Your task to perform on an android device: manage bookmarks in the chrome app Image 0: 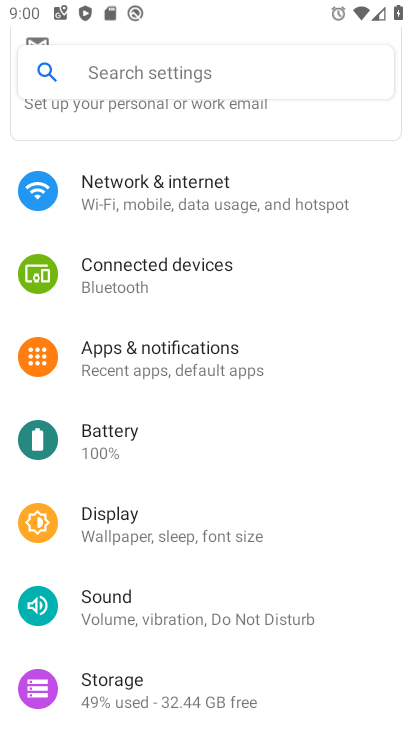
Step 0: press home button
Your task to perform on an android device: manage bookmarks in the chrome app Image 1: 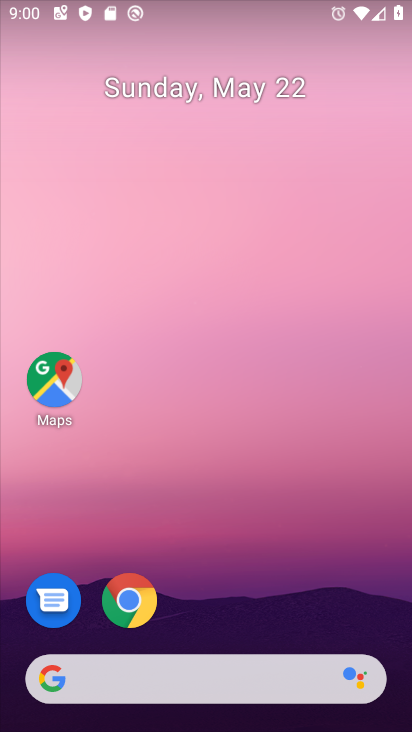
Step 1: click (148, 597)
Your task to perform on an android device: manage bookmarks in the chrome app Image 2: 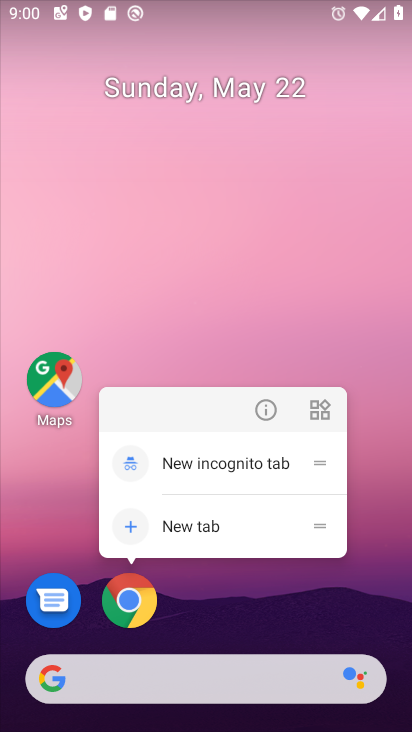
Step 2: click (136, 603)
Your task to perform on an android device: manage bookmarks in the chrome app Image 3: 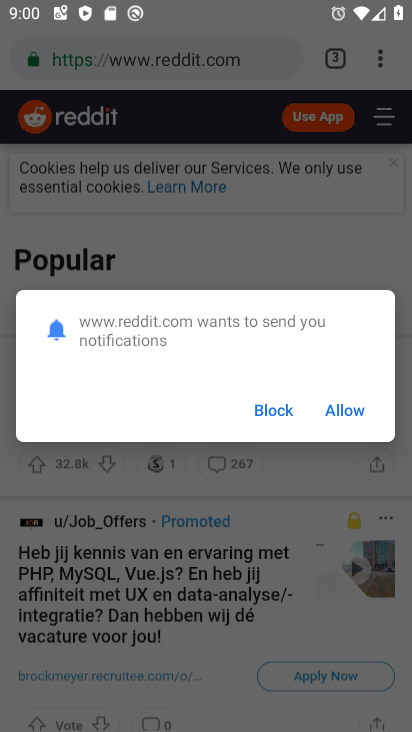
Step 3: click (299, 232)
Your task to perform on an android device: manage bookmarks in the chrome app Image 4: 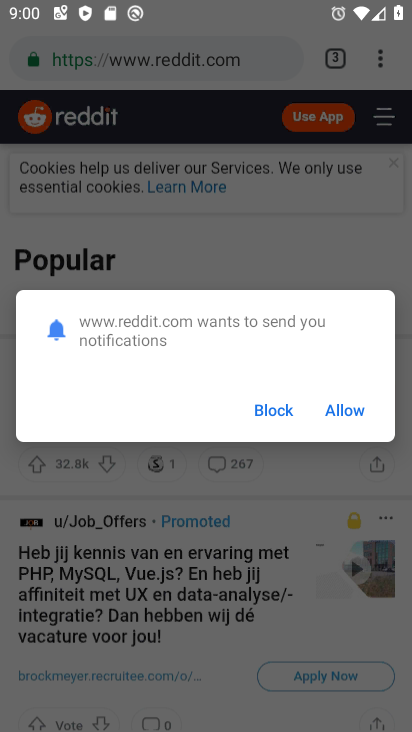
Step 4: click (269, 411)
Your task to perform on an android device: manage bookmarks in the chrome app Image 5: 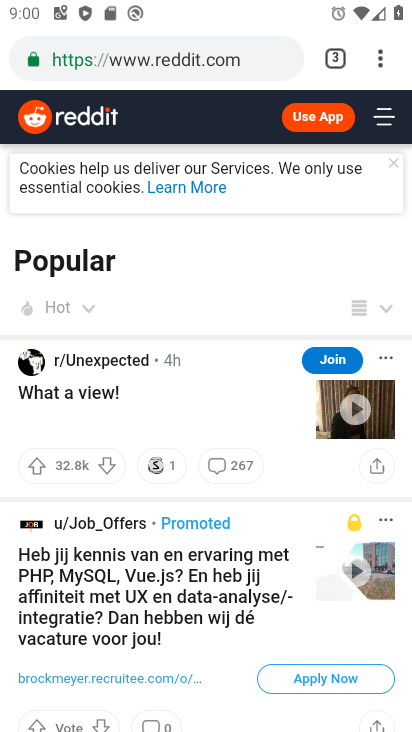
Step 5: click (383, 69)
Your task to perform on an android device: manage bookmarks in the chrome app Image 6: 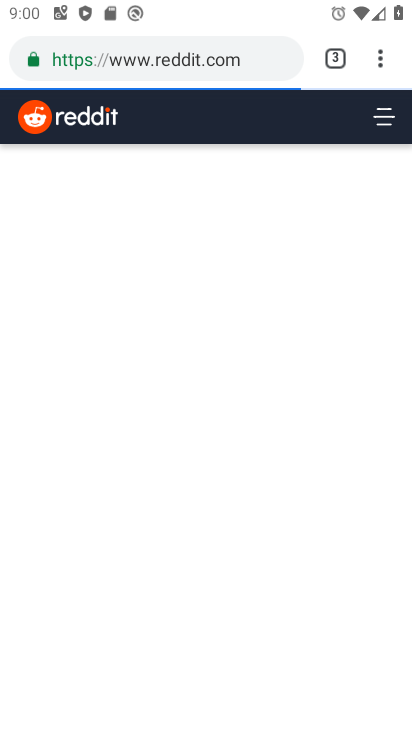
Step 6: click (382, 68)
Your task to perform on an android device: manage bookmarks in the chrome app Image 7: 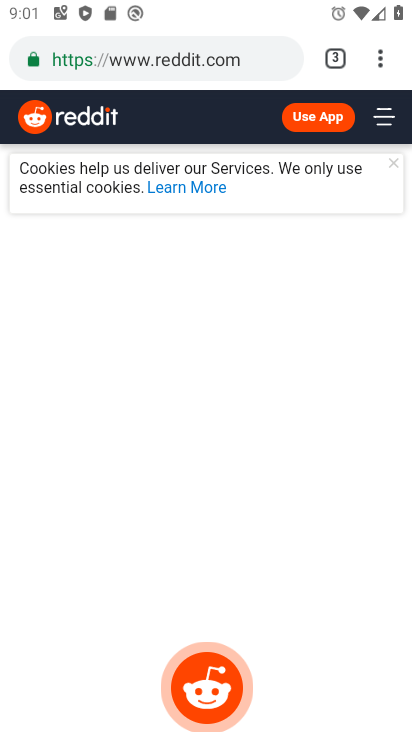
Step 7: click (382, 68)
Your task to perform on an android device: manage bookmarks in the chrome app Image 8: 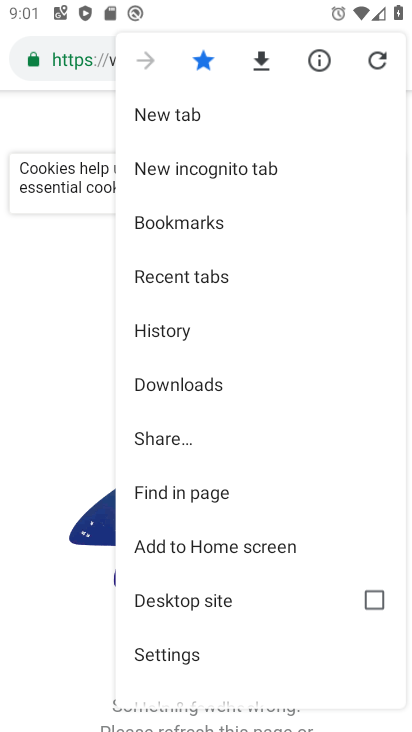
Step 8: click (225, 228)
Your task to perform on an android device: manage bookmarks in the chrome app Image 9: 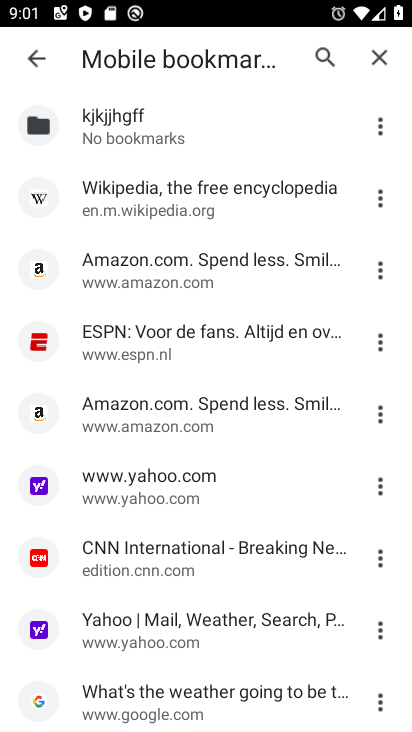
Step 9: task complete